Your task to perform on an android device: turn on showing notifications on the lock screen Image 0: 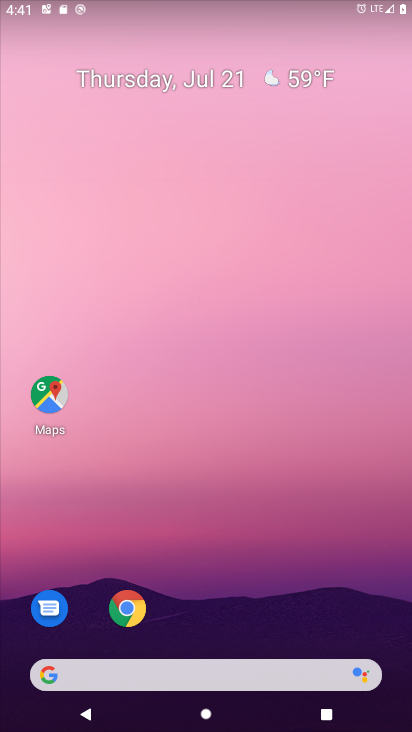
Step 0: drag from (128, 575) to (151, 84)
Your task to perform on an android device: turn on showing notifications on the lock screen Image 1: 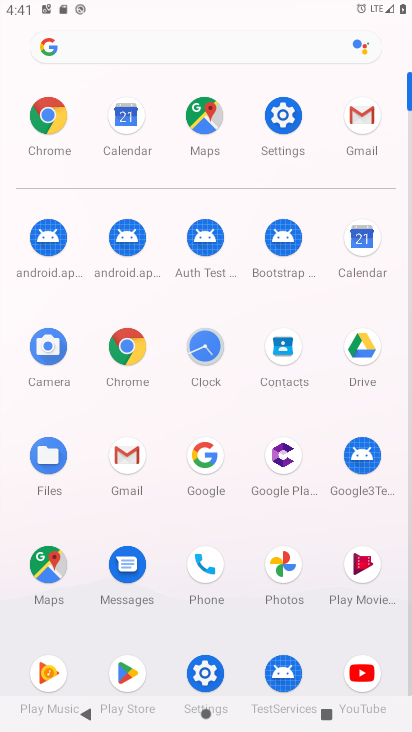
Step 1: click (280, 124)
Your task to perform on an android device: turn on showing notifications on the lock screen Image 2: 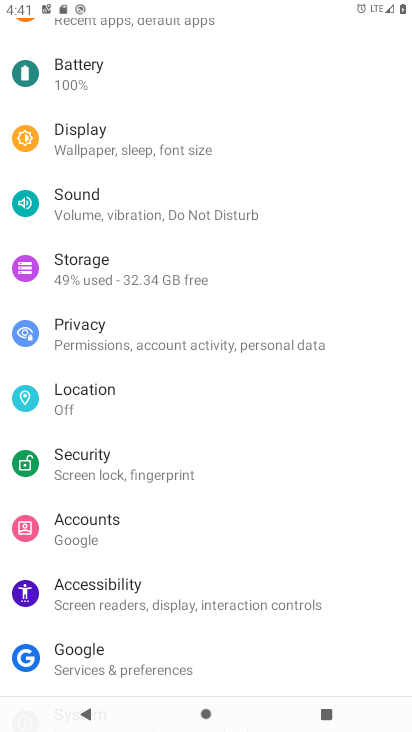
Step 2: drag from (132, 166) to (151, 430)
Your task to perform on an android device: turn on showing notifications on the lock screen Image 3: 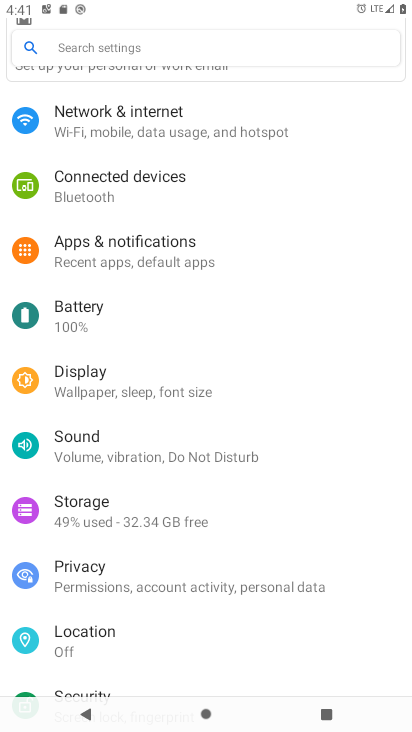
Step 3: click (148, 246)
Your task to perform on an android device: turn on showing notifications on the lock screen Image 4: 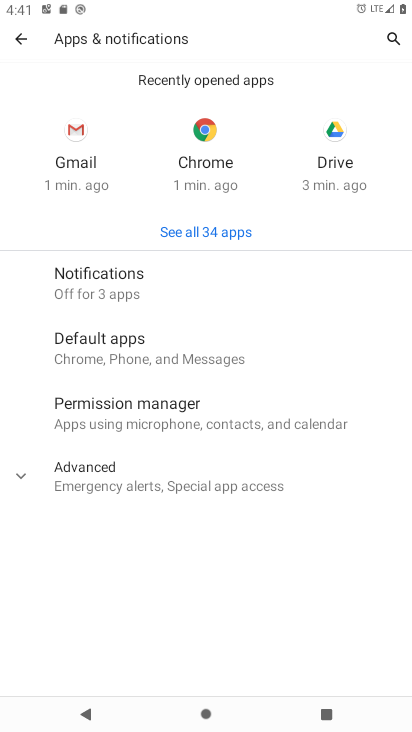
Step 4: click (139, 290)
Your task to perform on an android device: turn on showing notifications on the lock screen Image 5: 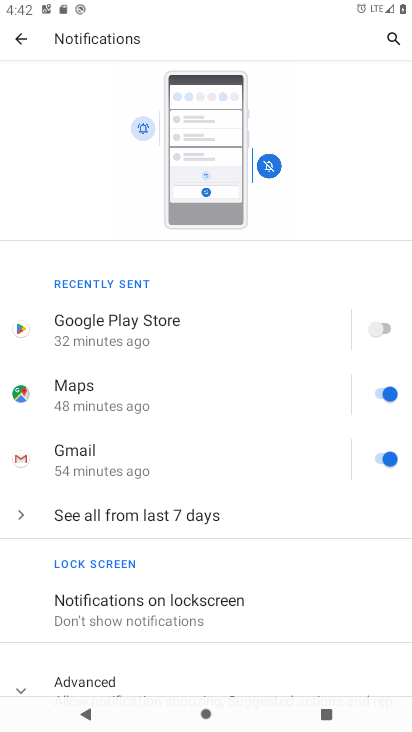
Step 5: click (259, 600)
Your task to perform on an android device: turn on showing notifications on the lock screen Image 6: 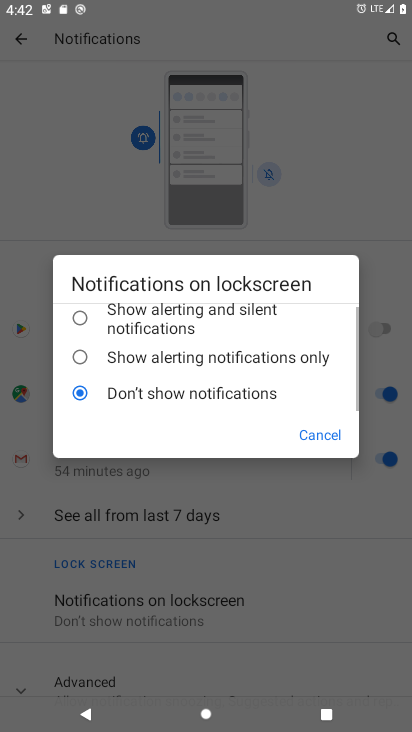
Step 6: click (74, 321)
Your task to perform on an android device: turn on showing notifications on the lock screen Image 7: 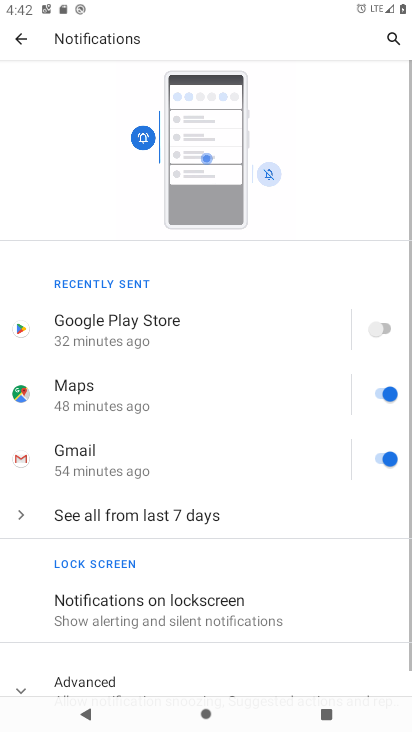
Step 7: task complete